Your task to perform on an android device: turn on wifi Image 0: 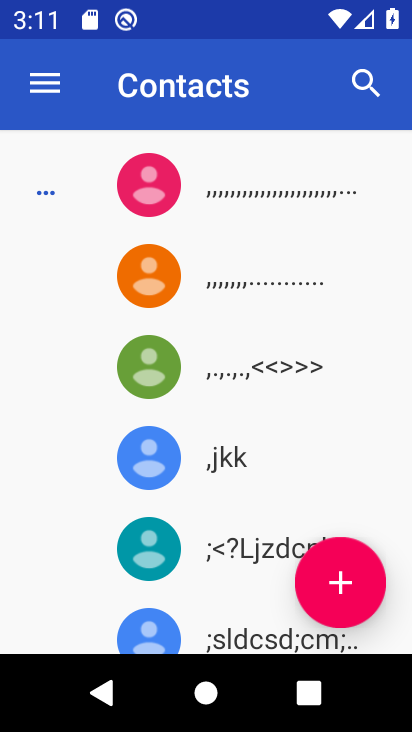
Step 0: press home button
Your task to perform on an android device: turn on wifi Image 1: 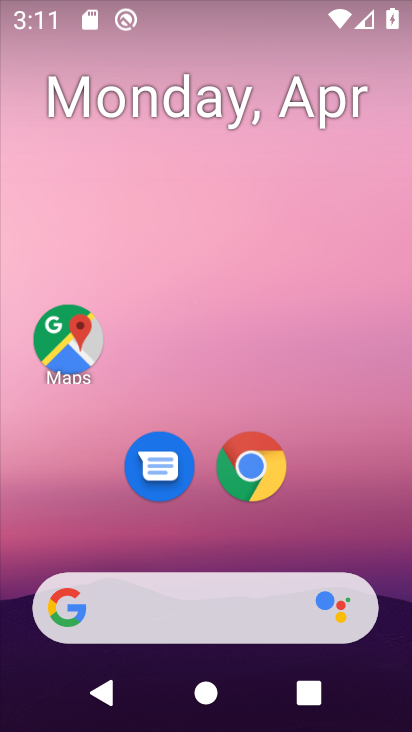
Step 1: drag from (312, 483) to (294, 279)
Your task to perform on an android device: turn on wifi Image 2: 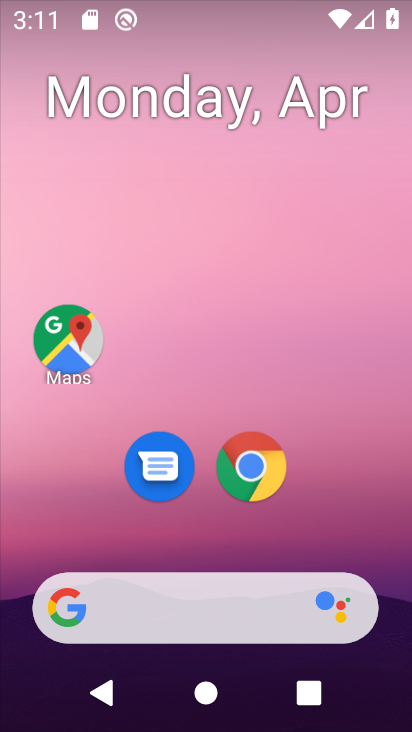
Step 2: drag from (322, 376) to (315, 56)
Your task to perform on an android device: turn on wifi Image 3: 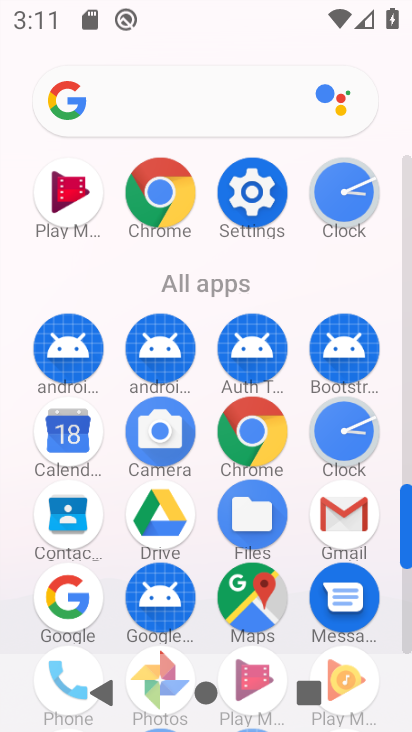
Step 3: click (255, 216)
Your task to perform on an android device: turn on wifi Image 4: 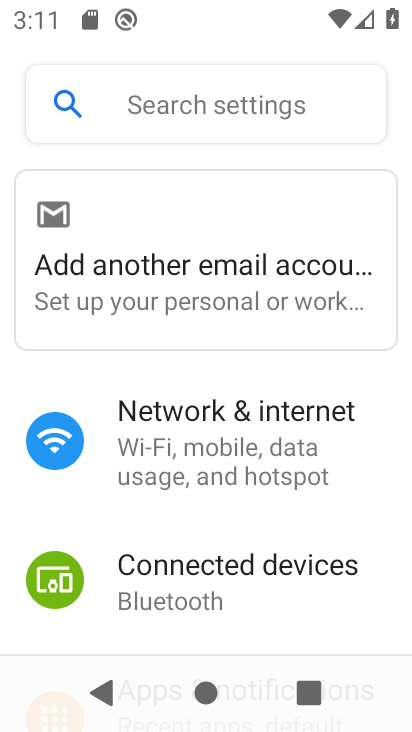
Step 4: click (230, 445)
Your task to perform on an android device: turn on wifi Image 5: 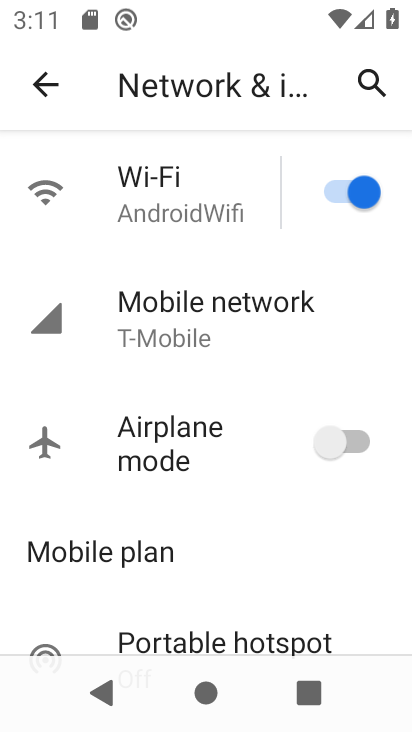
Step 5: task complete